Your task to perform on an android device: toggle wifi Image 0: 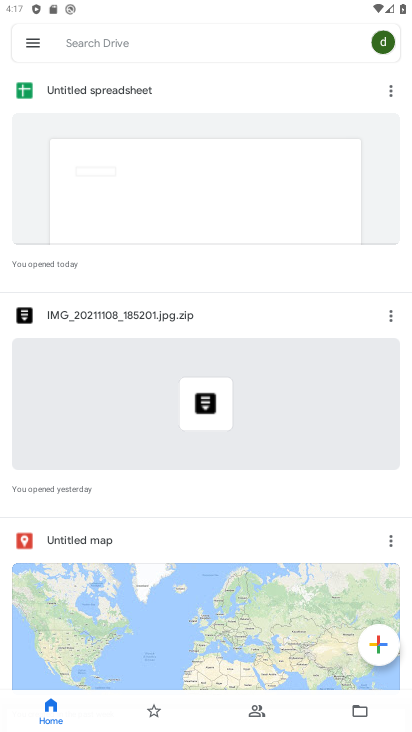
Step 0: press home button
Your task to perform on an android device: toggle wifi Image 1: 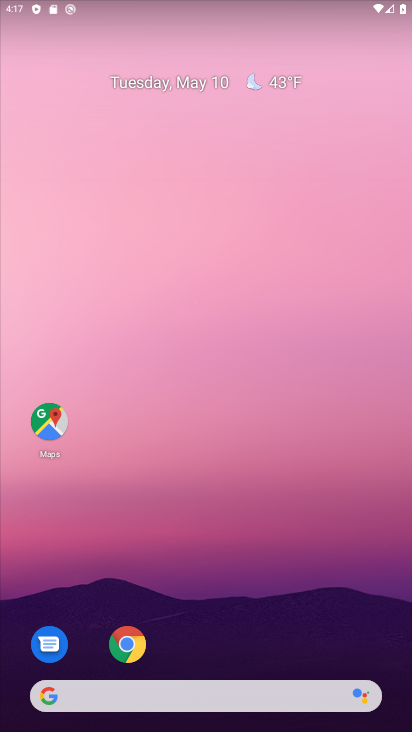
Step 1: drag from (185, 671) to (186, 273)
Your task to perform on an android device: toggle wifi Image 2: 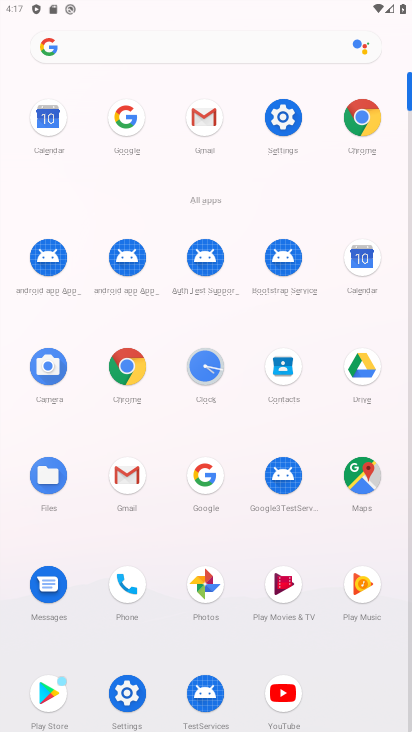
Step 2: click (285, 116)
Your task to perform on an android device: toggle wifi Image 3: 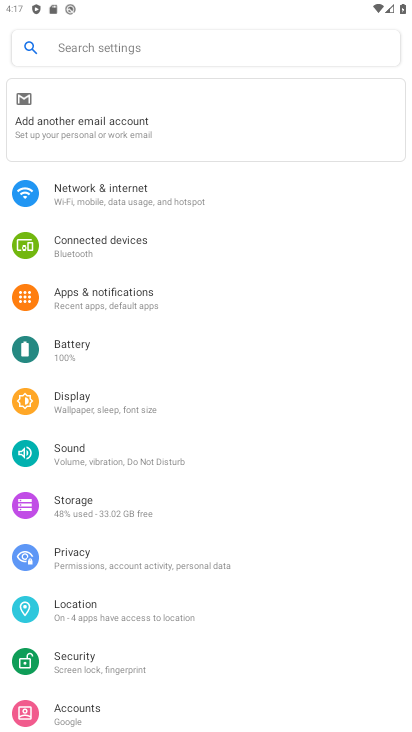
Step 3: click (155, 206)
Your task to perform on an android device: toggle wifi Image 4: 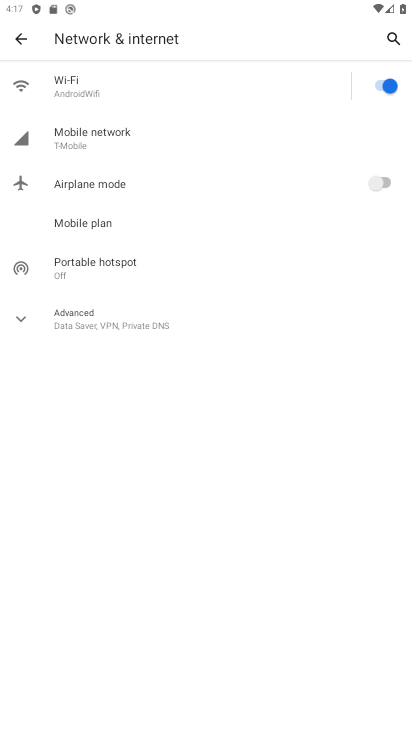
Step 4: click (105, 93)
Your task to perform on an android device: toggle wifi Image 5: 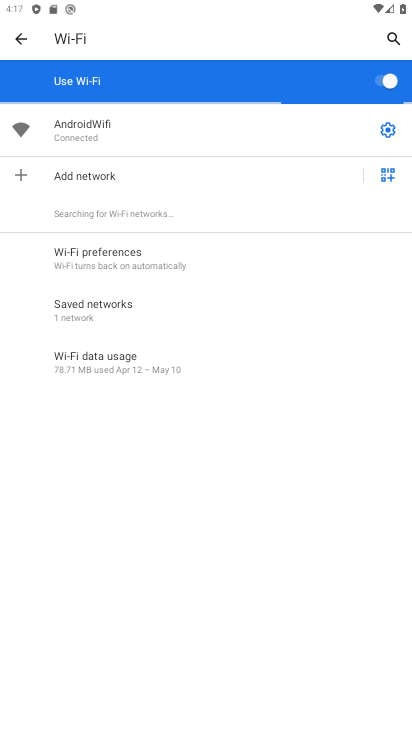
Step 5: click (381, 80)
Your task to perform on an android device: toggle wifi Image 6: 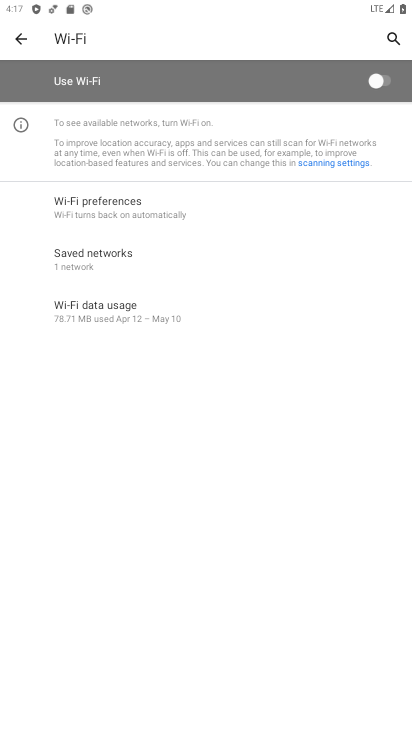
Step 6: task complete